Your task to perform on an android device: Go to Yahoo.com Image 0: 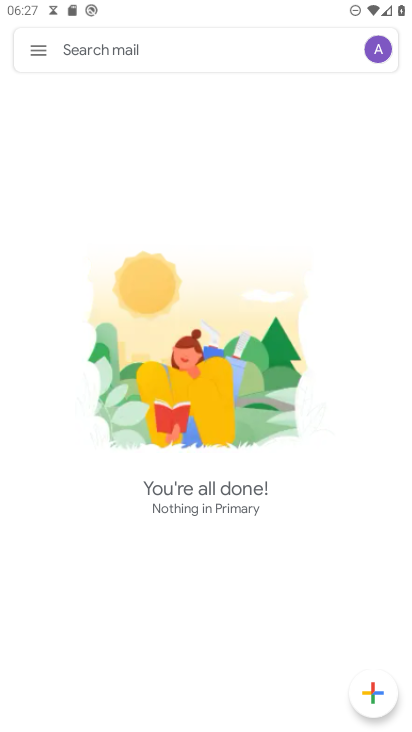
Step 0: press home button
Your task to perform on an android device: Go to Yahoo.com Image 1: 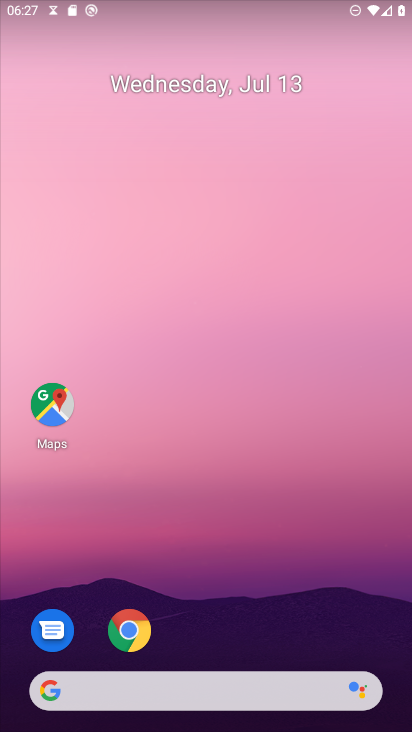
Step 1: drag from (289, 664) to (294, 114)
Your task to perform on an android device: Go to Yahoo.com Image 2: 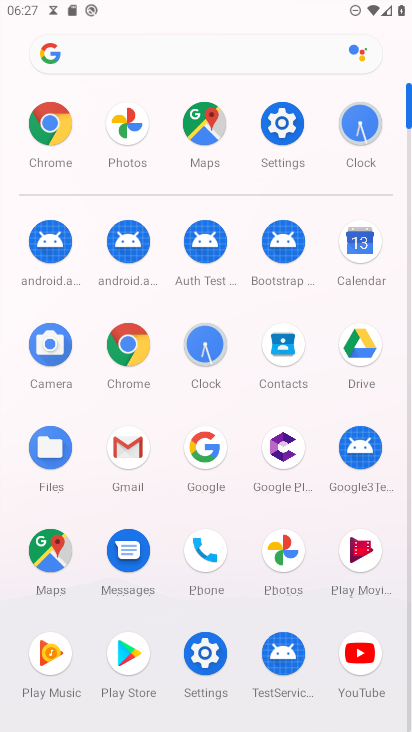
Step 2: click (134, 337)
Your task to perform on an android device: Go to Yahoo.com Image 3: 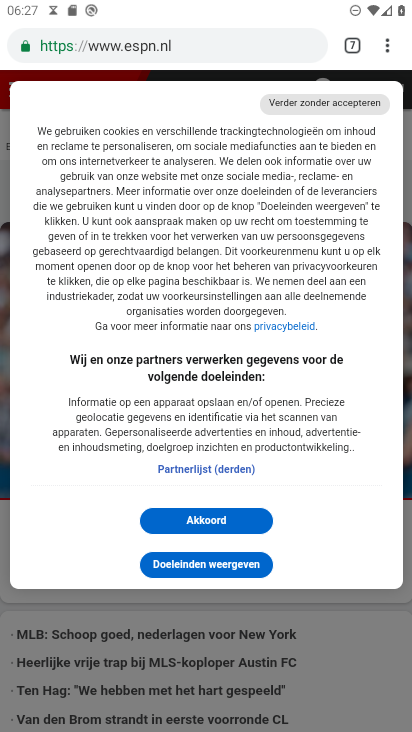
Step 3: click (212, 44)
Your task to perform on an android device: Go to Yahoo.com Image 4: 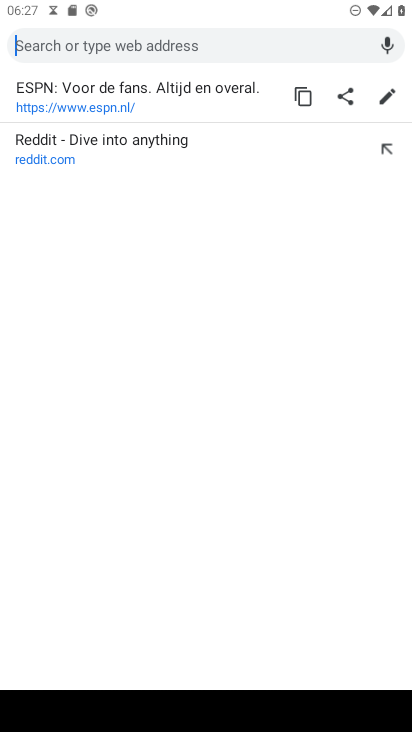
Step 4: type "yahoo.com"
Your task to perform on an android device: Go to Yahoo.com Image 5: 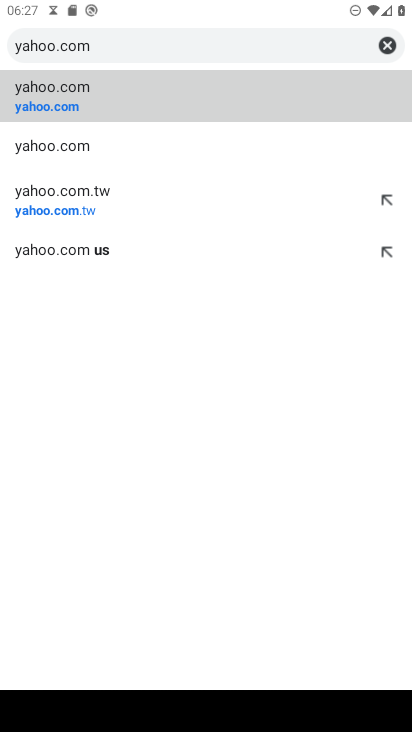
Step 5: click (27, 112)
Your task to perform on an android device: Go to Yahoo.com Image 6: 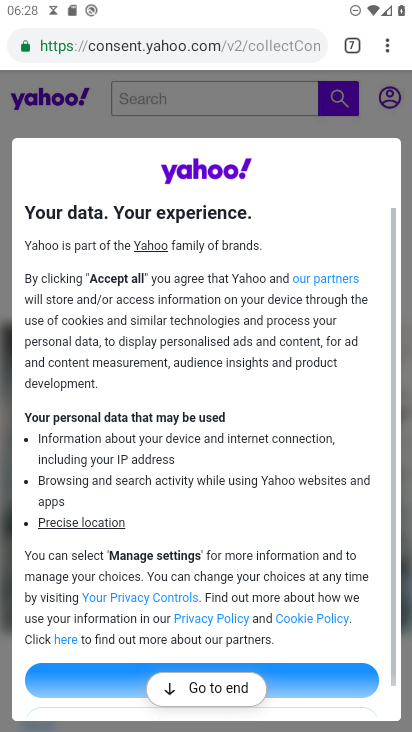
Step 6: task complete